Your task to perform on an android device: Open Reddit.com Image 0: 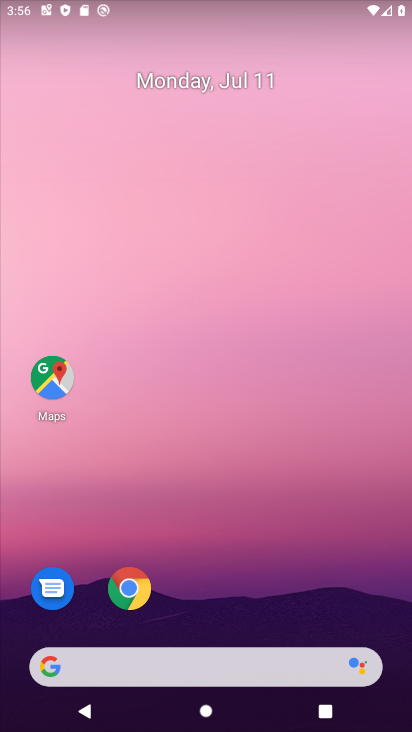
Step 0: drag from (326, 617) to (327, 126)
Your task to perform on an android device: Open Reddit.com Image 1: 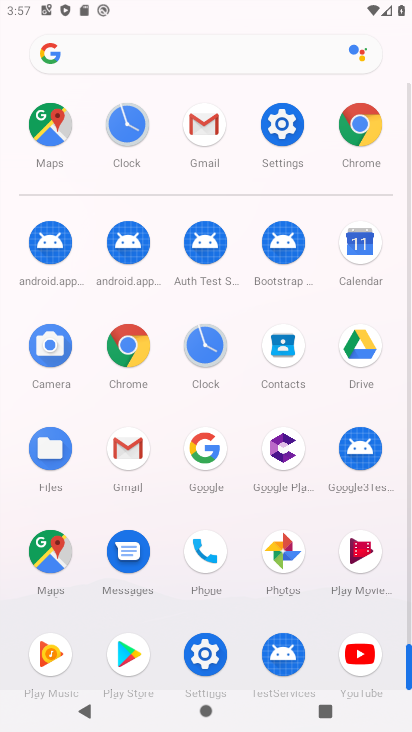
Step 1: click (131, 350)
Your task to perform on an android device: Open Reddit.com Image 2: 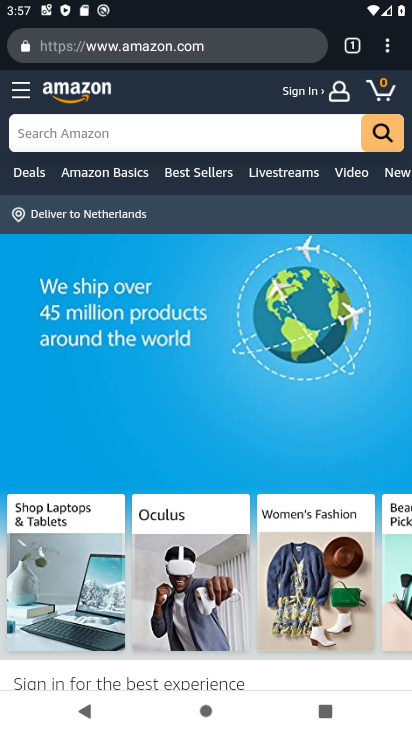
Step 2: click (209, 53)
Your task to perform on an android device: Open Reddit.com Image 3: 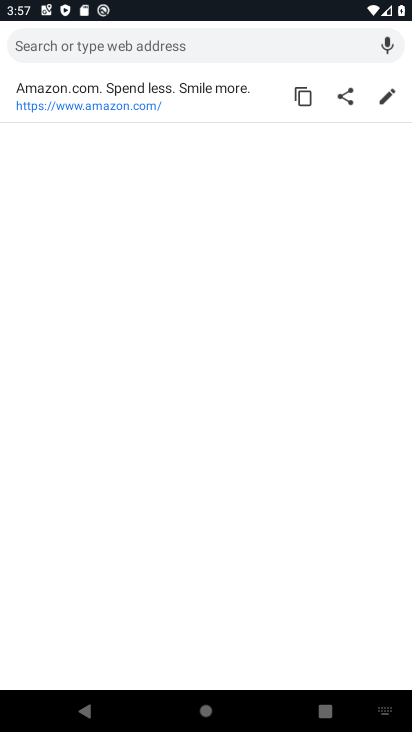
Step 3: type "reddit.com"
Your task to perform on an android device: Open Reddit.com Image 4: 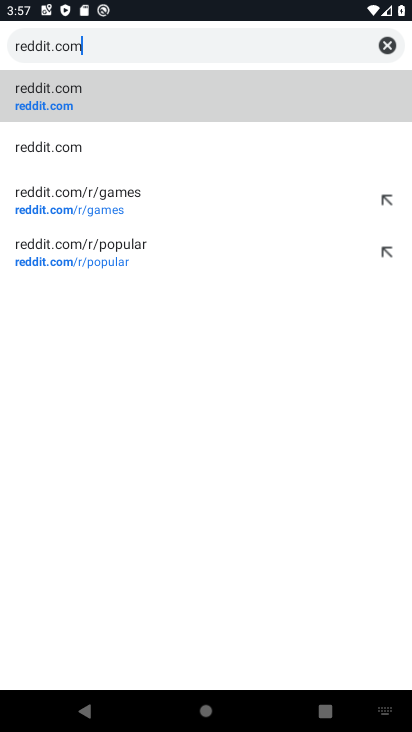
Step 4: click (244, 104)
Your task to perform on an android device: Open Reddit.com Image 5: 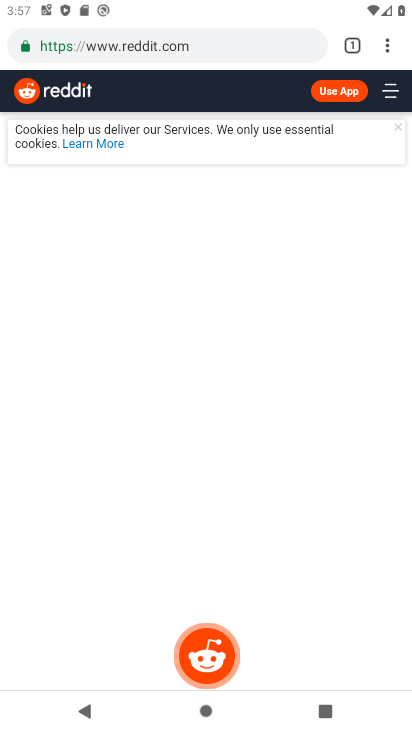
Step 5: task complete